Your task to perform on an android device: turn on airplane mode Image 0: 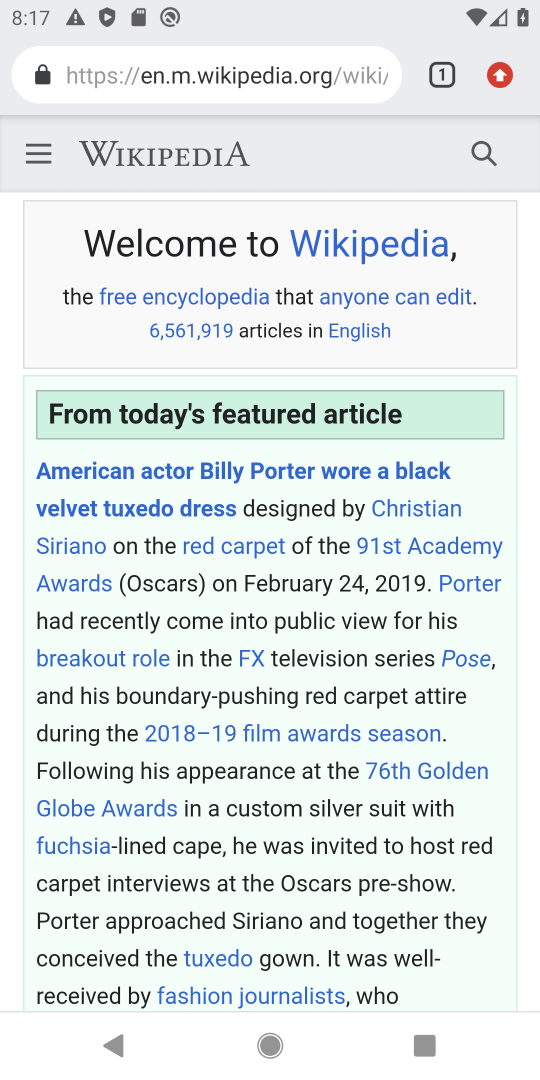
Step 0: press home button
Your task to perform on an android device: turn on airplane mode Image 1: 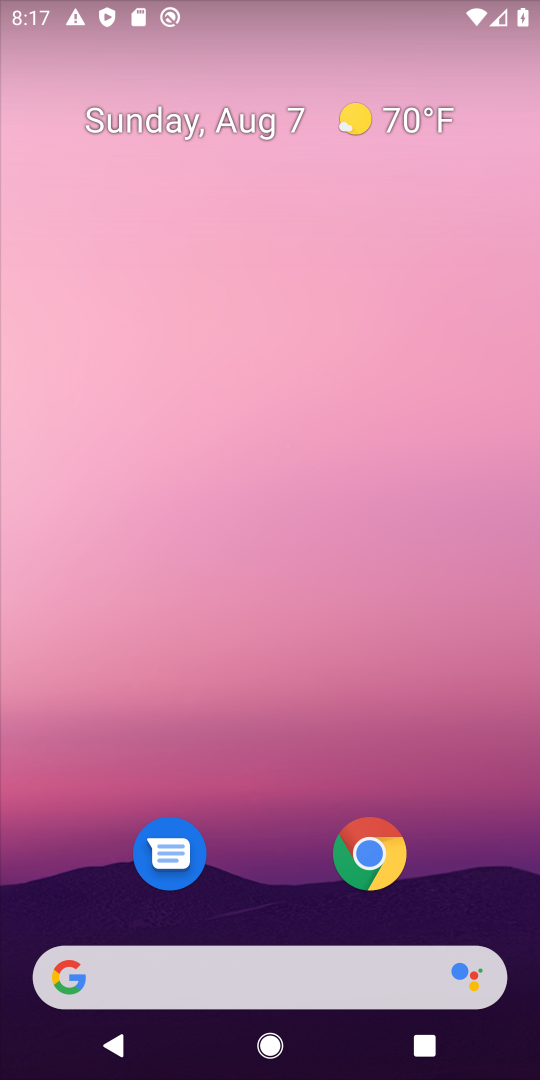
Step 1: drag from (290, 807) to (300, 48)
Your task to perform on an android device: turn on airplane mode Image 2: 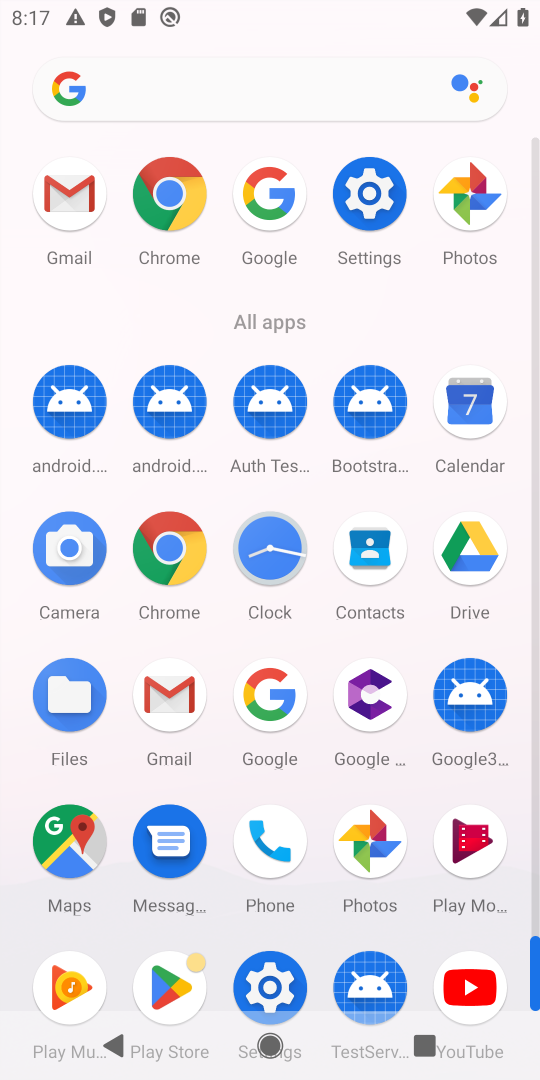
Step 2: click (369, 203)
Your task to perform on an android device: turn on airplane mode Image 3: 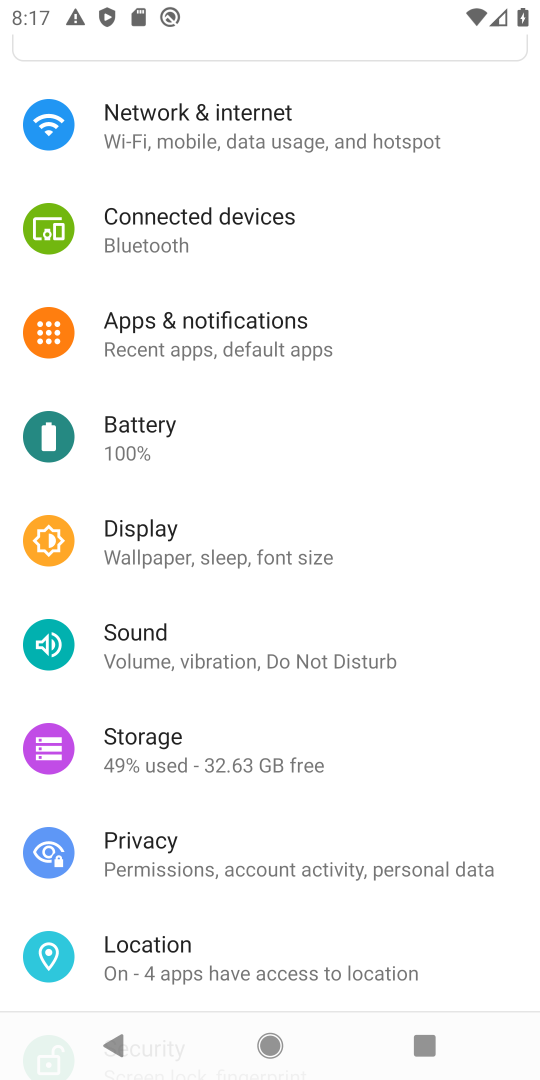
Step 3: click (252, 126)
Your task to perform on an android device: turn on airplane mode Image 4: 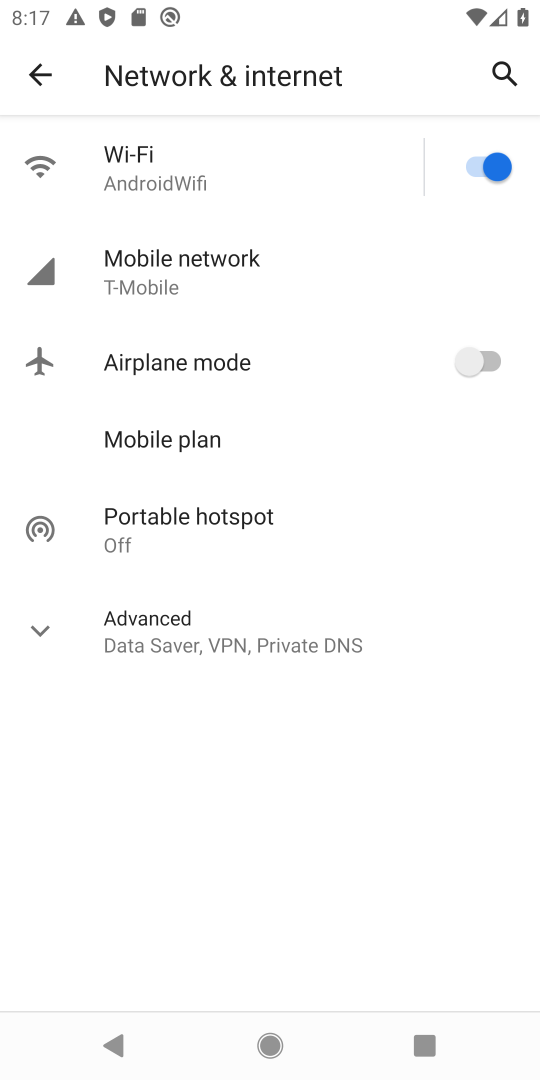
Step 4: click (250, 372)
Your task to perform on an android device: turn on airplane mode Image 5: 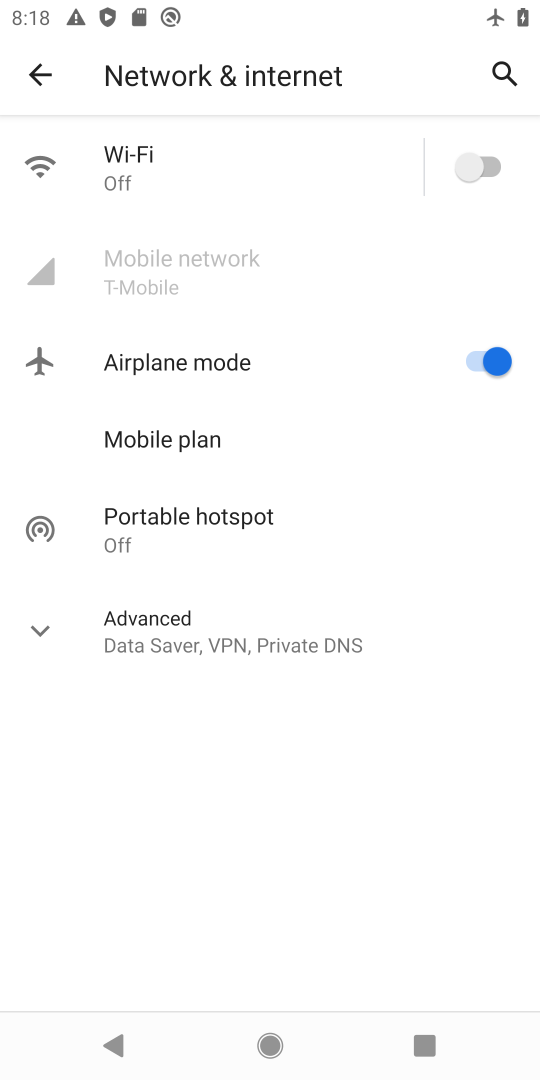
Step 5: task complete